Your task to perform on an android device: open app "Spotify" Image 0: 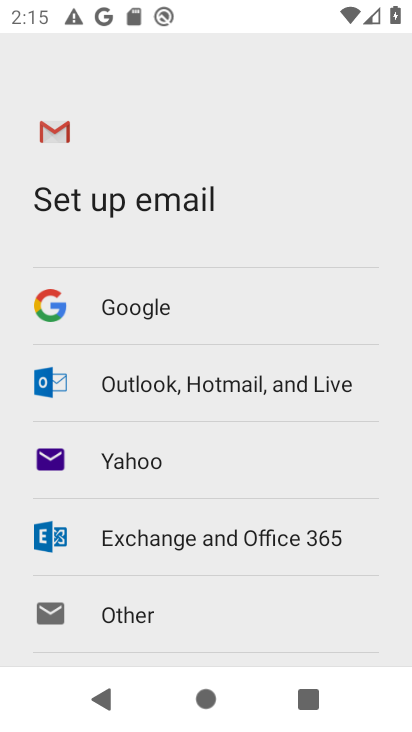
Step 0: press home button
Your task to perform on an android device: open app "Spotify" Image 1: 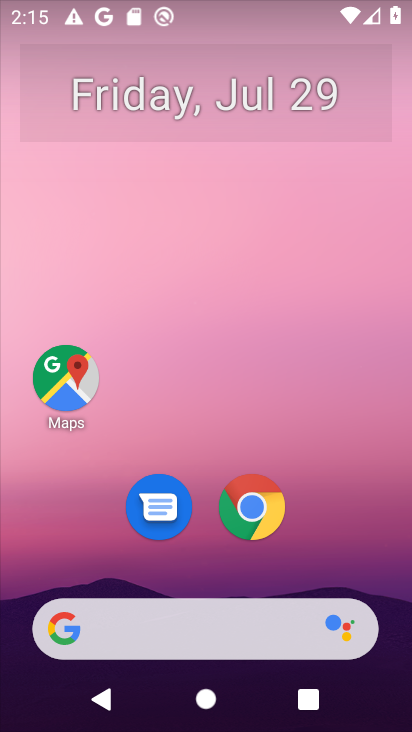
Step 1: click (249, 614)
Your task to perform on an android device: open app "Spotify" Image 2: 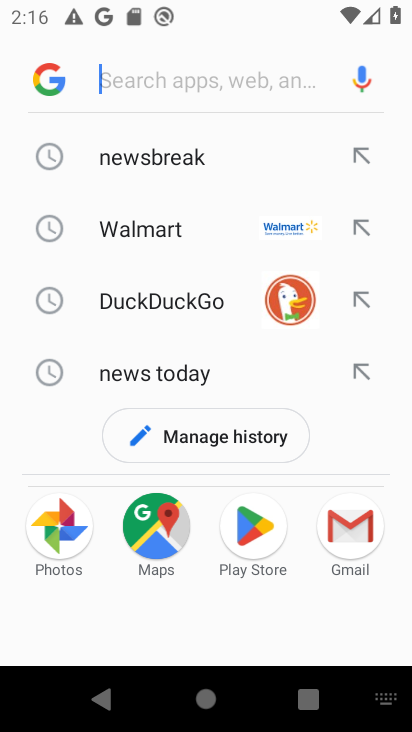
Step 2: type "spotify"
Your task to perform on an android device: open app "Spotify" Image 3: 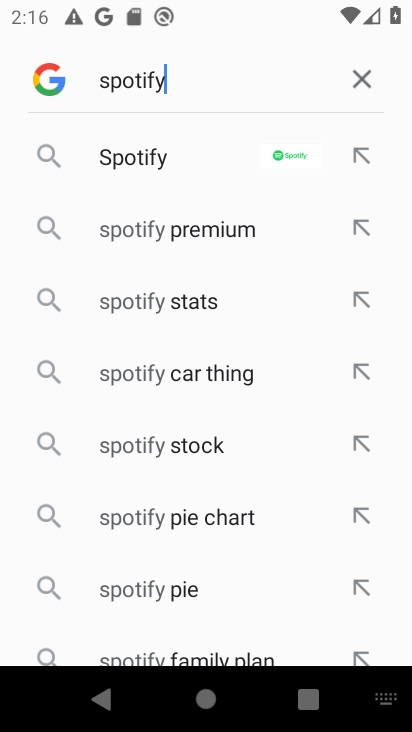
Step 3: click (173, 172)
Your task to perform on an android device: open app "Spotify" Image 4: 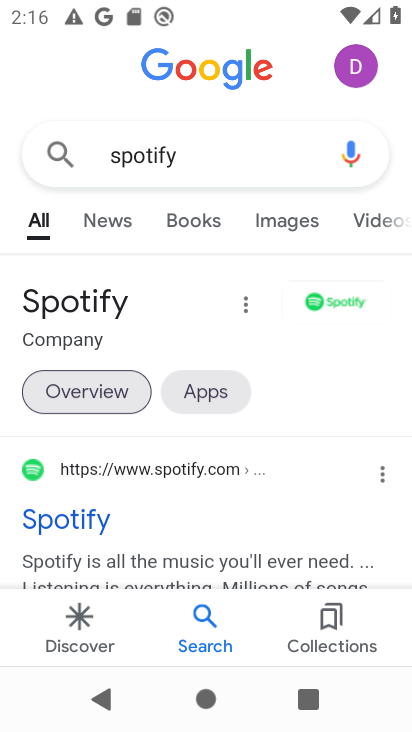
Step 4: task complete